Your task to perform on an android device: Clear the shopping cart on bestbuy.com. Add "logitech g910" to the cart on bestbuy.com Image 0: 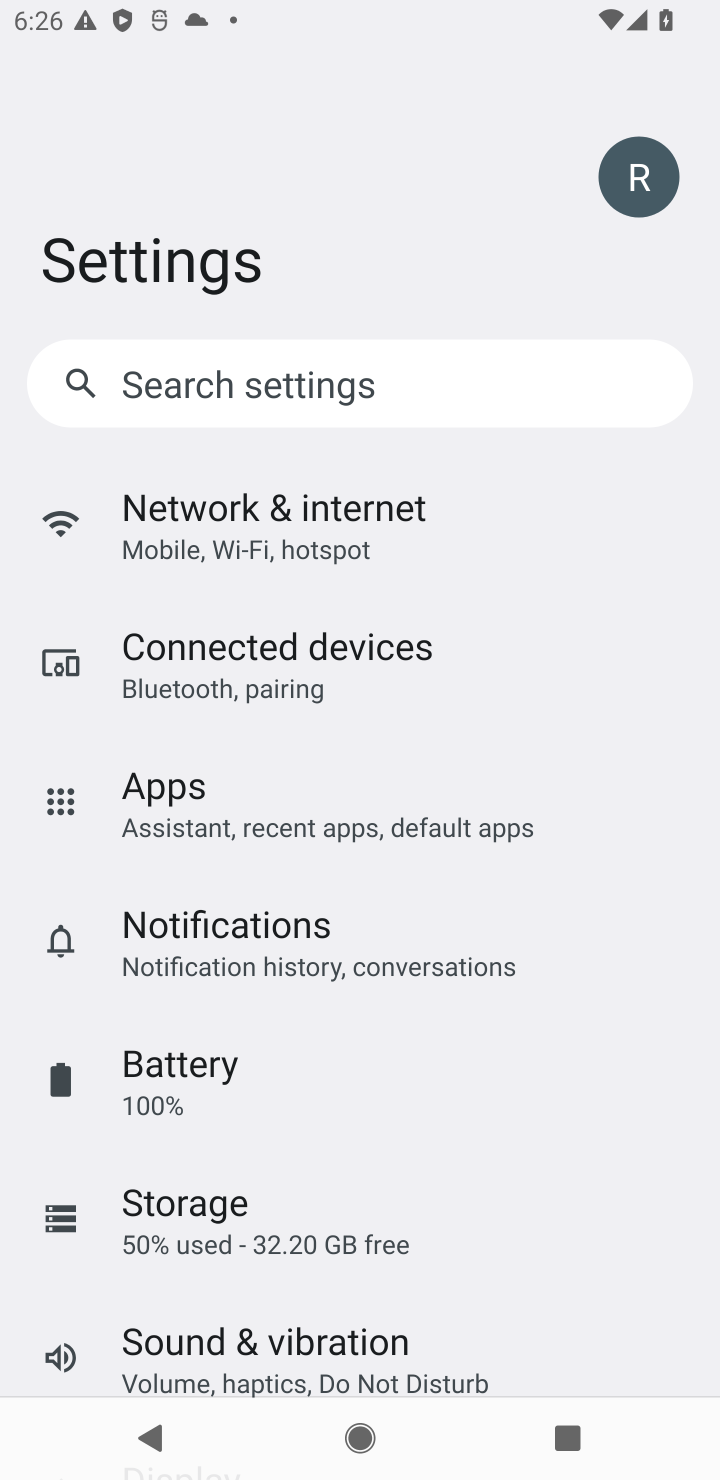
Step 0: press home button
Your task to perform on an android device: Clear the shopping cart on bestbuy.com. Add "logitech g910" to the cart on bestbuy.com Image 1: 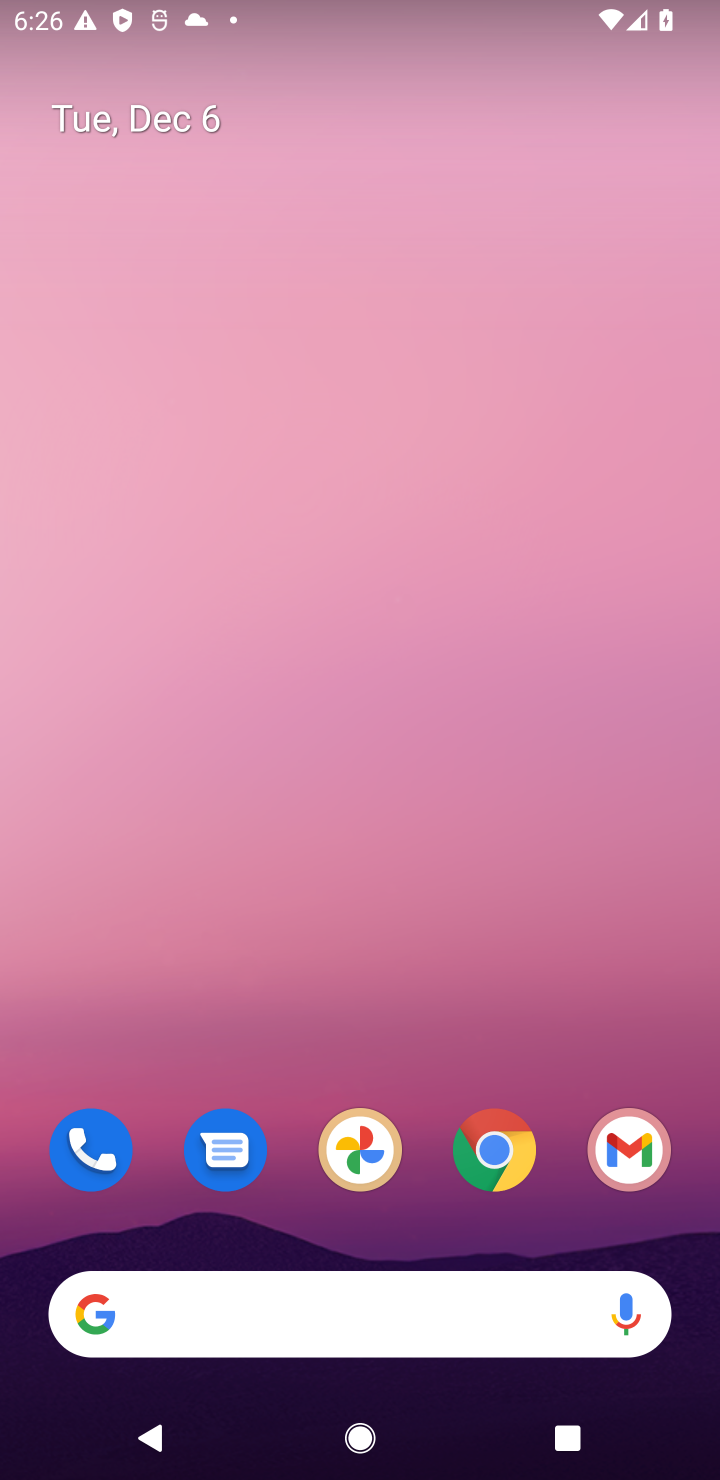
Step 1: click (490, 1150)
Your task to perform on an android device: Clear the shopping cart on bestbuy.com. Add "logitech g910" to the cart on bestbuy.com Image 2: 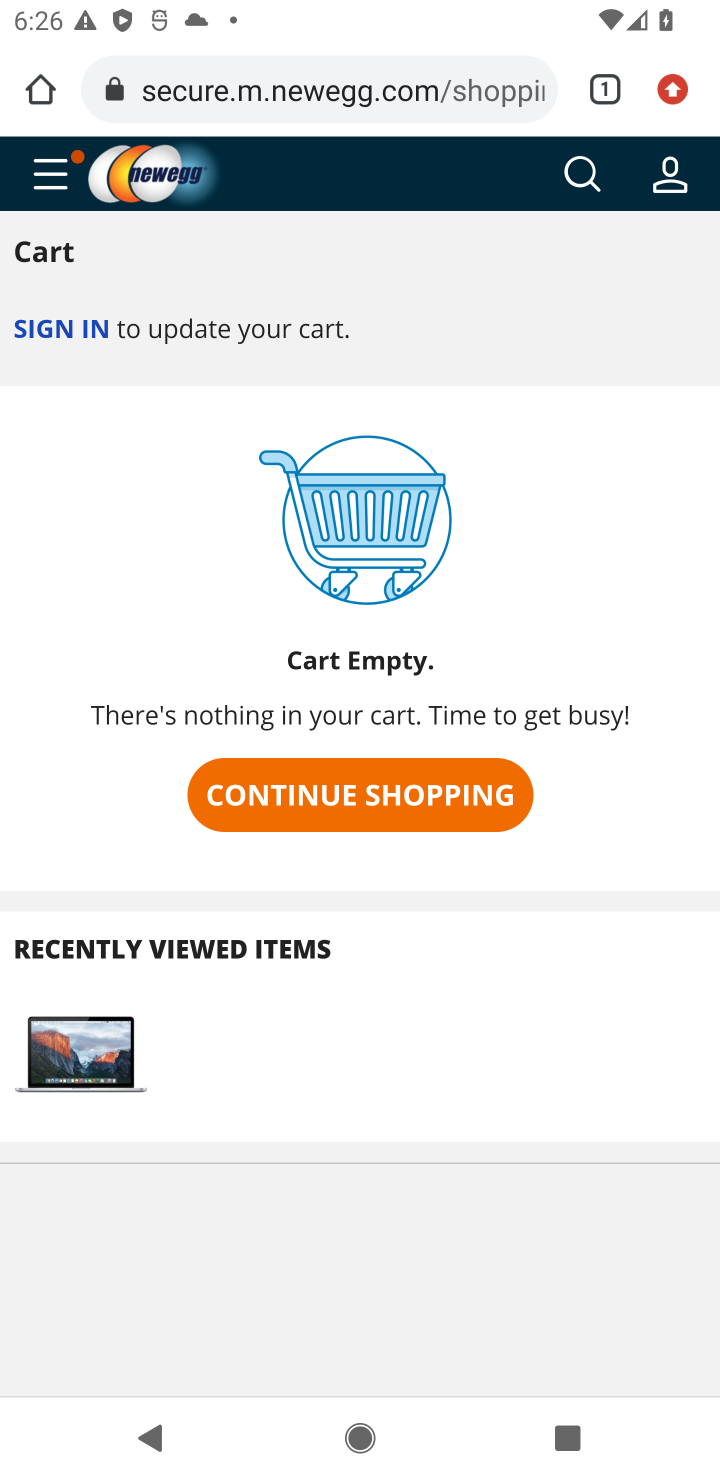
Step 2: click (295, 82)
Your task to perform on an android device: Clear the shopping cart on bestbuy.com. Add "logitech g910" to the cart on bestbuy.com Image 3: 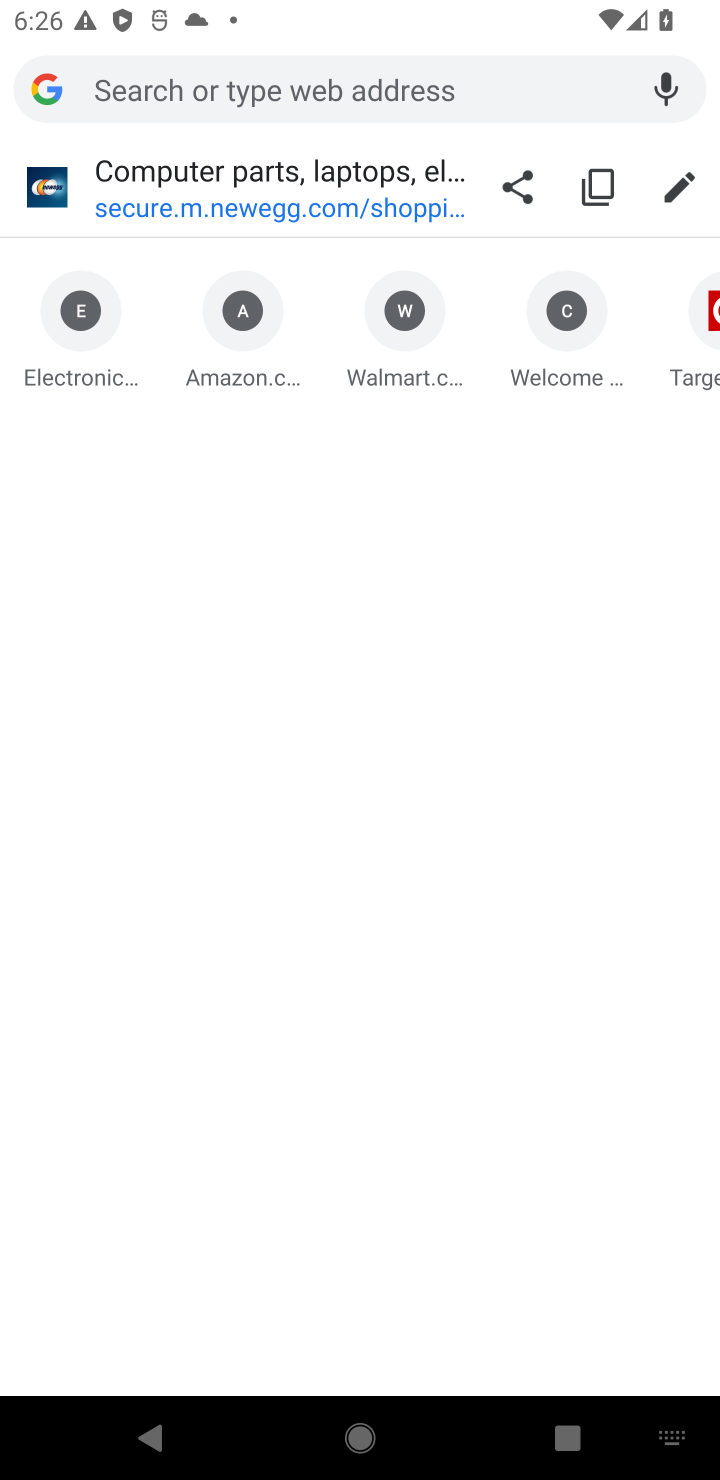
Step 3: type "bestbuy.com"
Your task to perform on an android device: Clear the shopping cart on bestbuy.com. Add "logitech g910" to the cart on bestbuy.com Image 4: 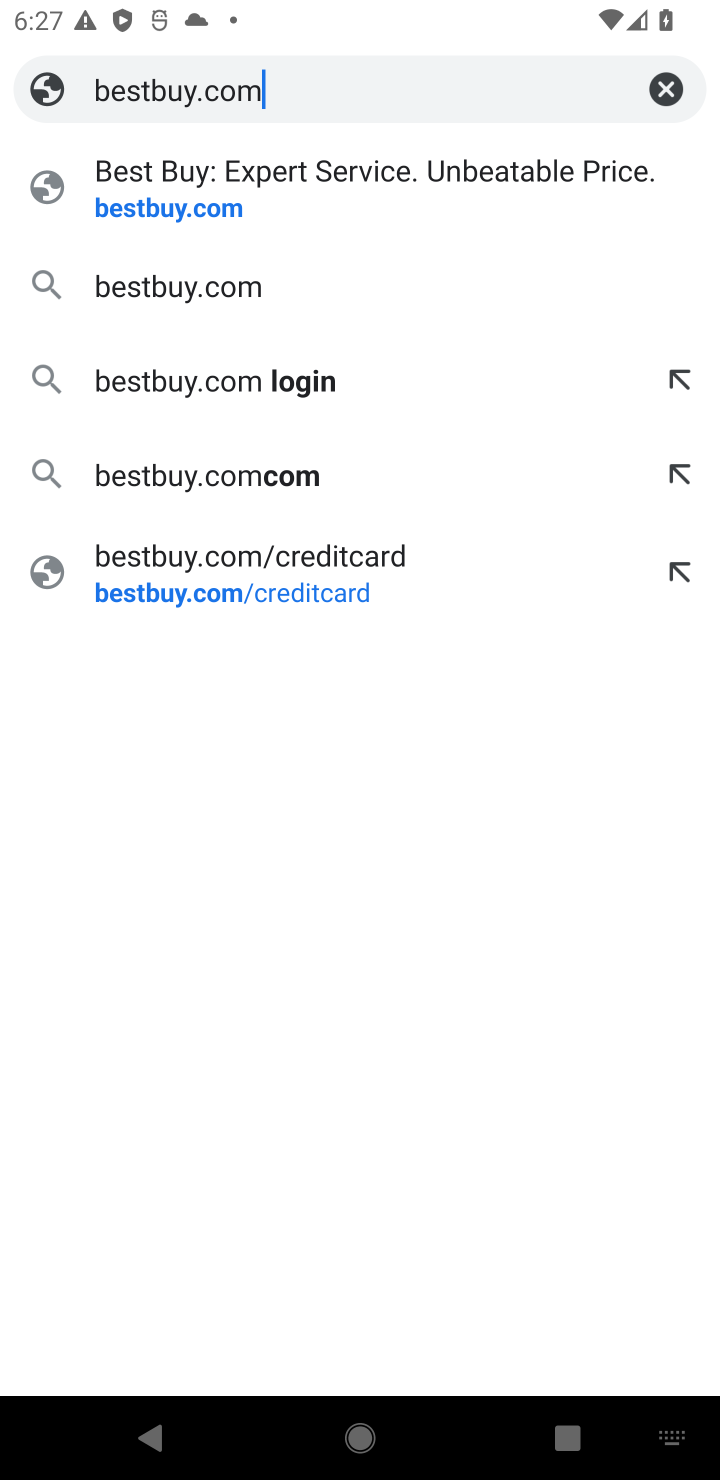
Step 4: click (149, 218)
Your task to perform on an android device: Clear the shopping cart on bestbuy.com. Add "logitech g910" to the cart on bestbuy.com Image 5: 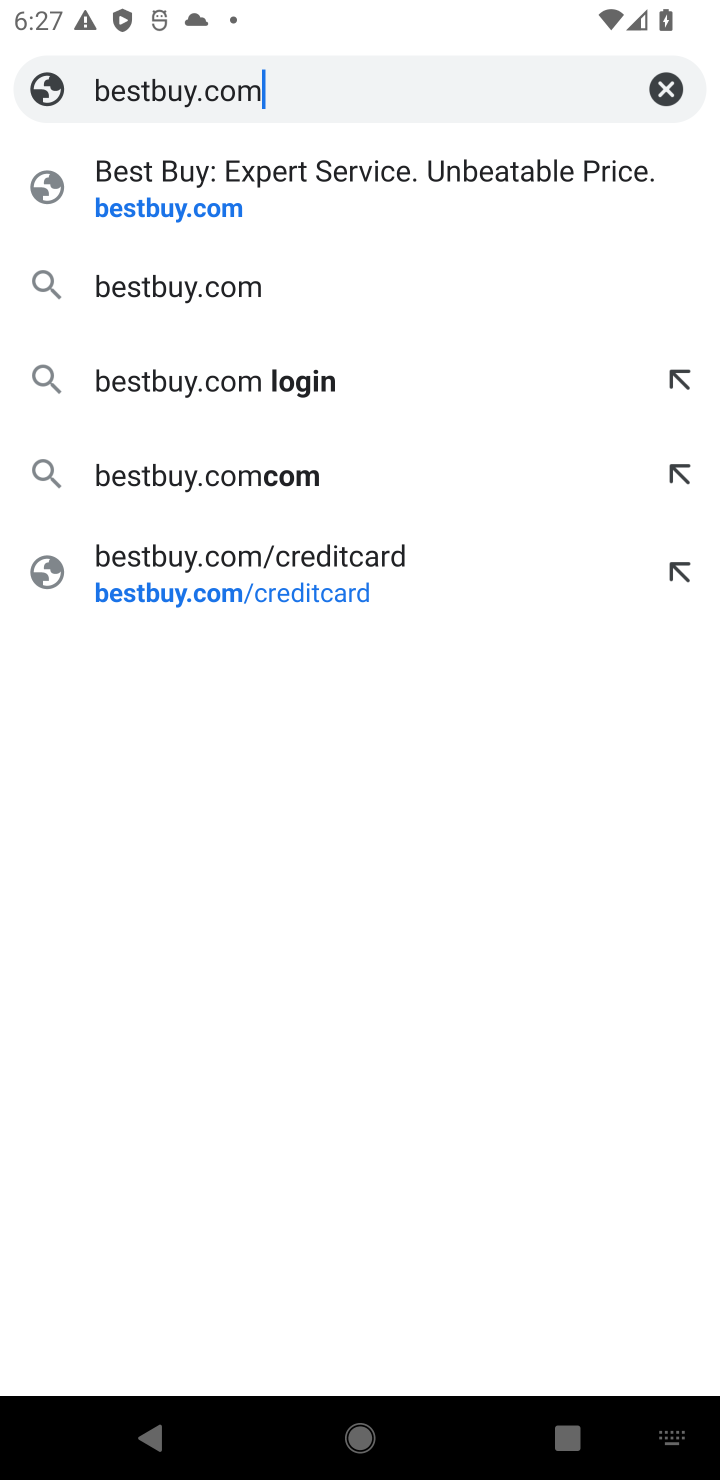
Step 5: click (138, 217)
Your task to perform on an android device: Clear the shopping cart on bestbuy.com. Add "logitech g910" to the cart on bestbuy.com Image 6: 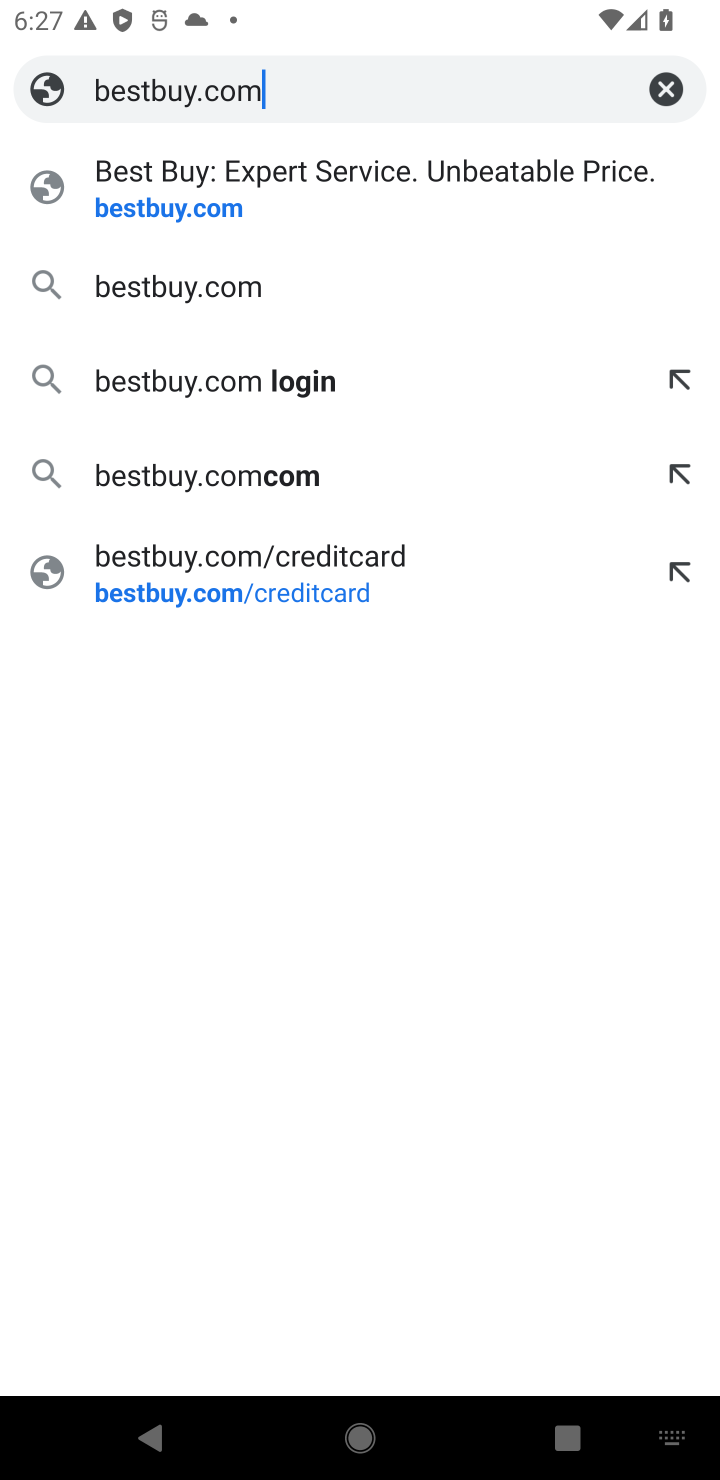
Step 6: click (302, 182)
Your task to perform on an android device: Clear the shopping cart on bestbuy.com. Add "logitech g910" to the cart on bestbuy.com Image 7: 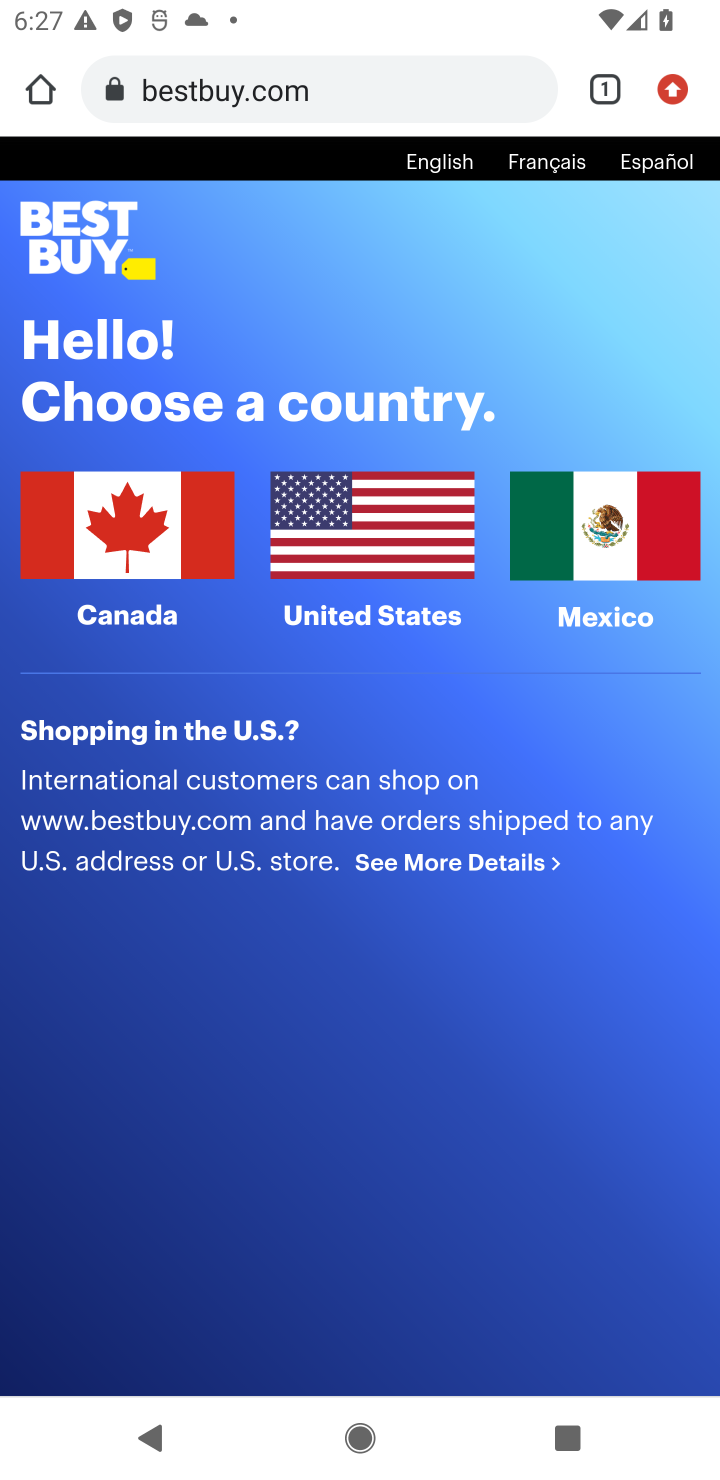
Step 7: click (363, 528)
Your task to perform on an android device: Clear the shopping cart on bestbuy.com. Add "logitech g910" to the cart on bestbuy.com Image 8: 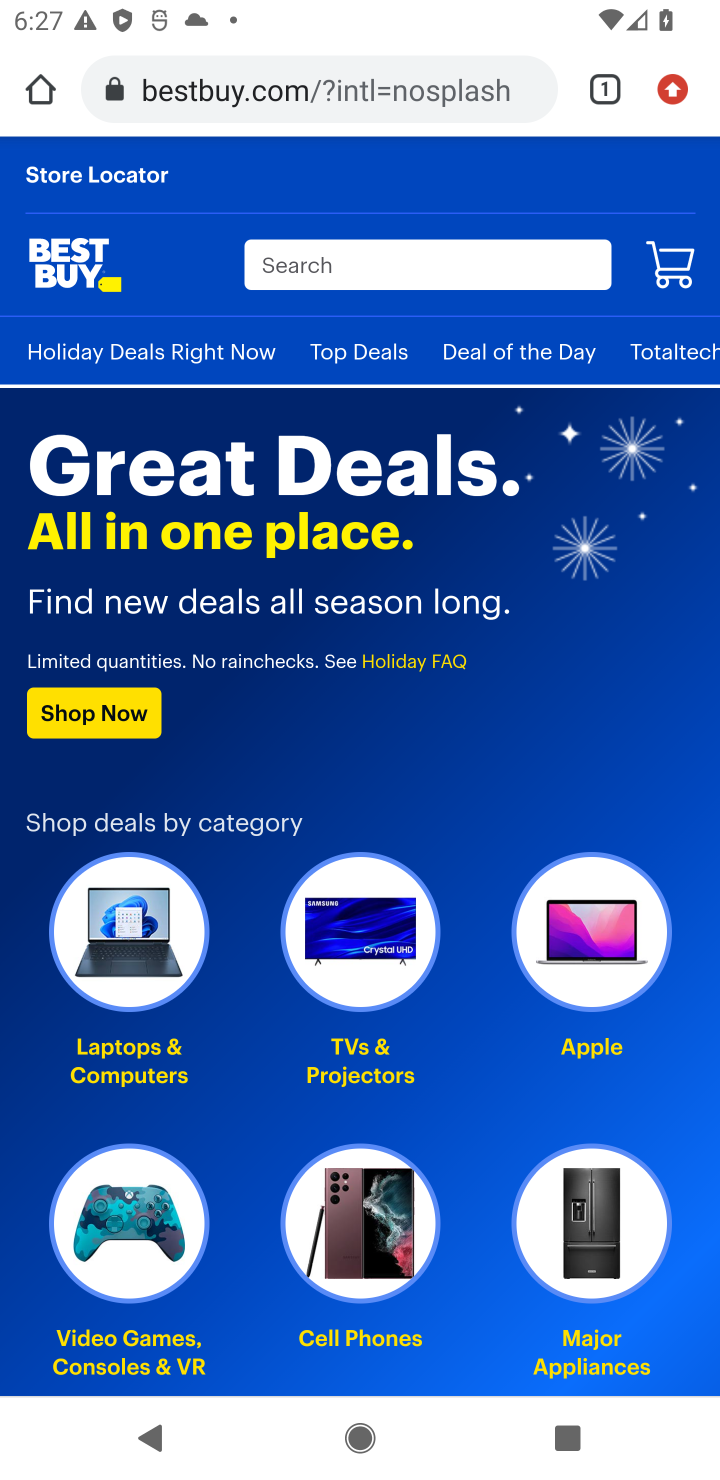
Step 8: click (668, 265)
Your task to perform on an android device: Clear the shopping cart on bestbuy.com. Add "logitech g910" to the cart on bestbuy.com Image 9: 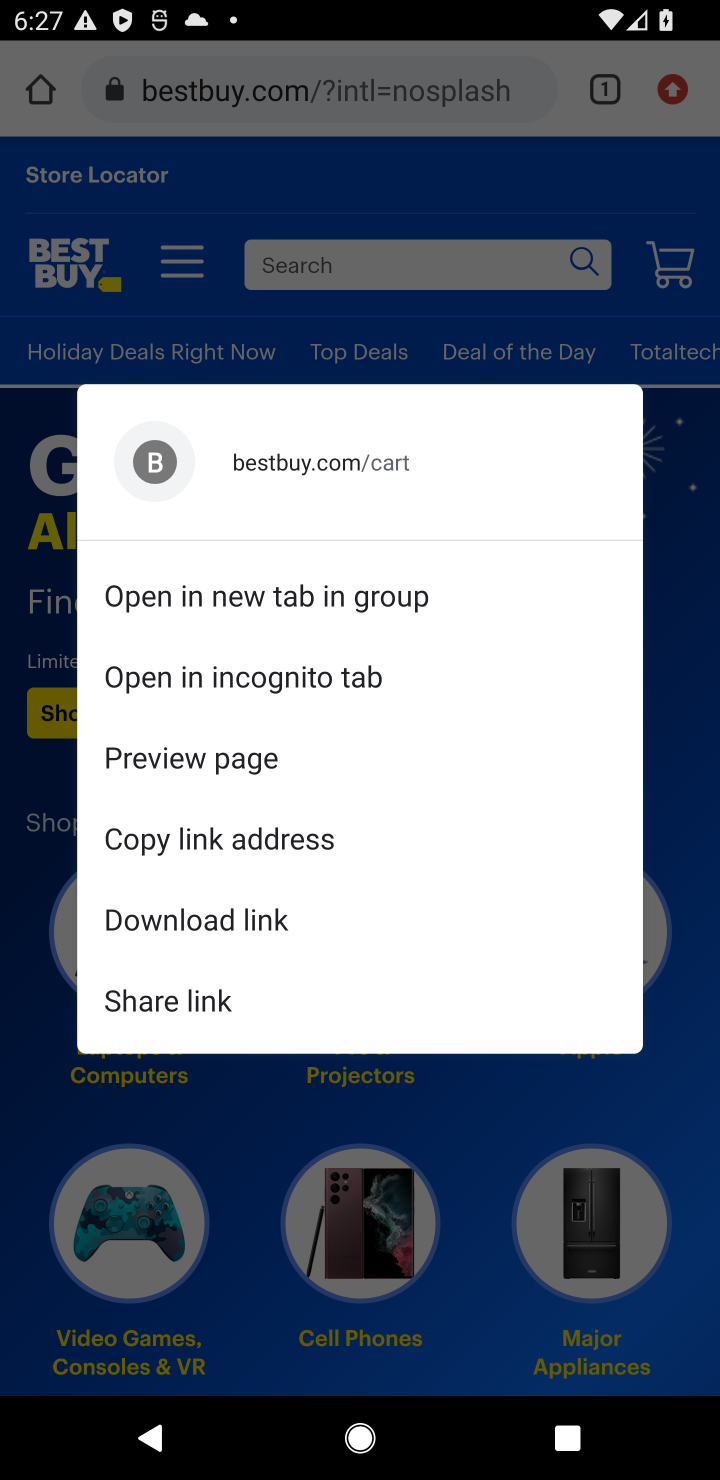
Step 9: click (666, 268)
Your task to perform on an android device: Clear the shopping cart on bestbuy.com. Add "logitech g910" to the cart on bestbuy.com Image 10: 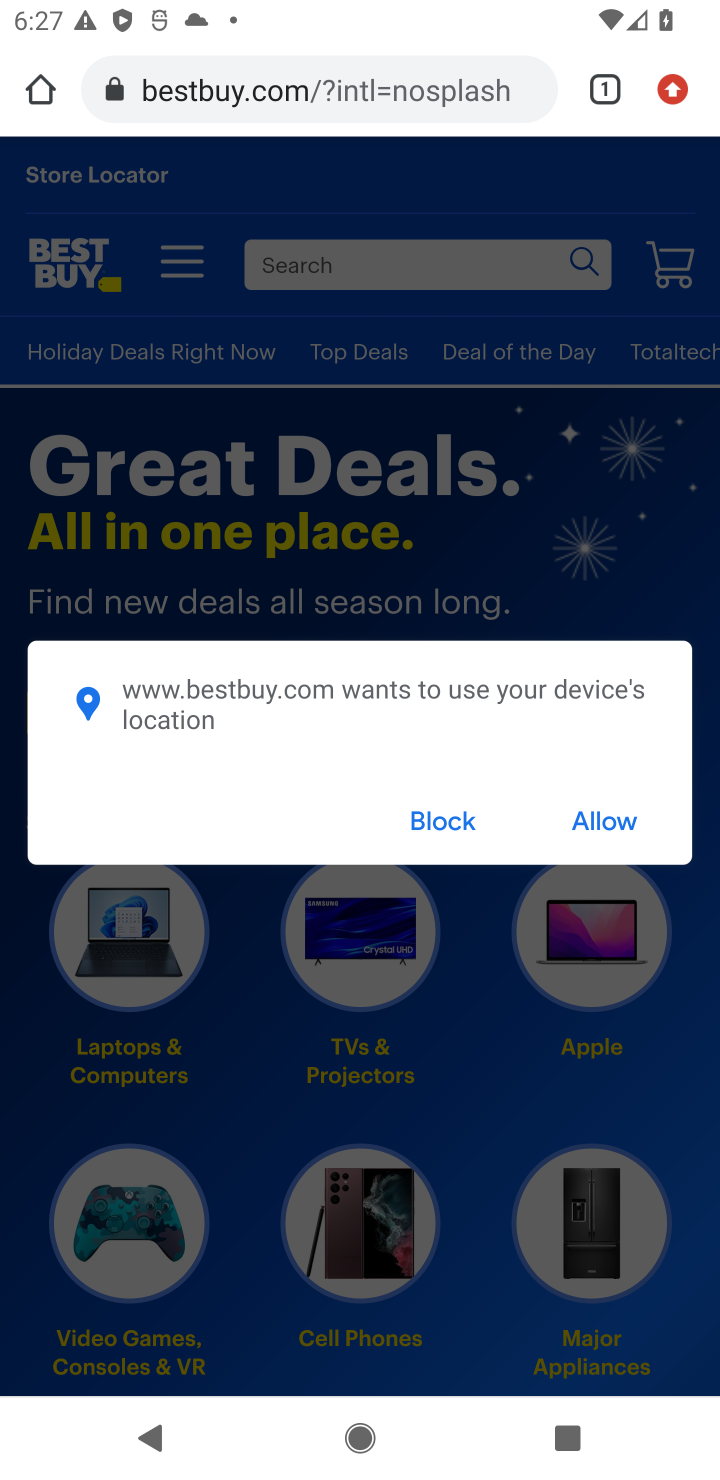
Step 10: click (424, 828)
Your task to perform on an android device: Clear the shopping cart on bestbuy.com. Add "logitech g910" to the cart on bestbuy.com Image 11: 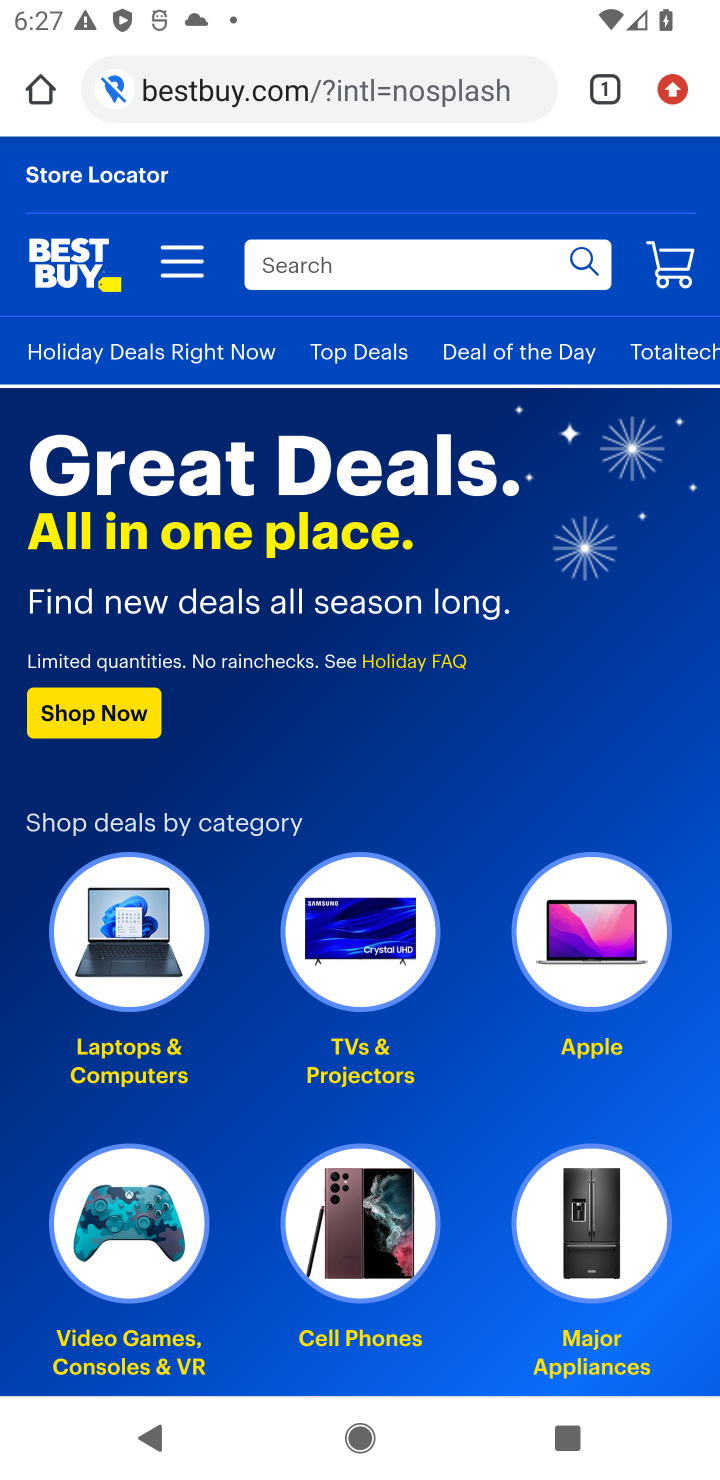
Step 11: click (671, 262)
Your task to perform on an android device: Clear the shopping cart on bestbuy.com. Add "logitech g910" to the cart on bestbuy.com Image 12: 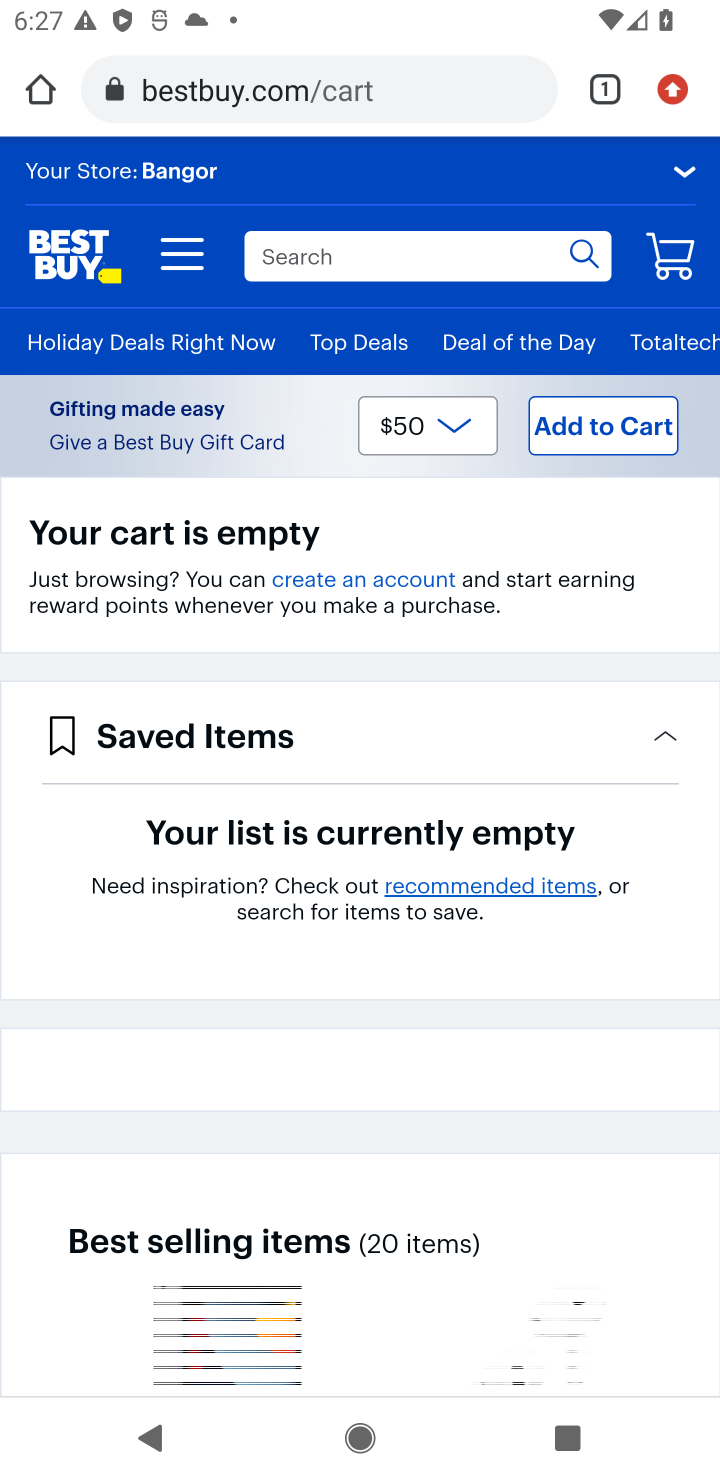
Step 12: click (314, 255)
Your task to perform on an android device: Clear the shopping cart on bestbuy.com. Add "logitech g910" to the cart on bestbuy.com Image 13: 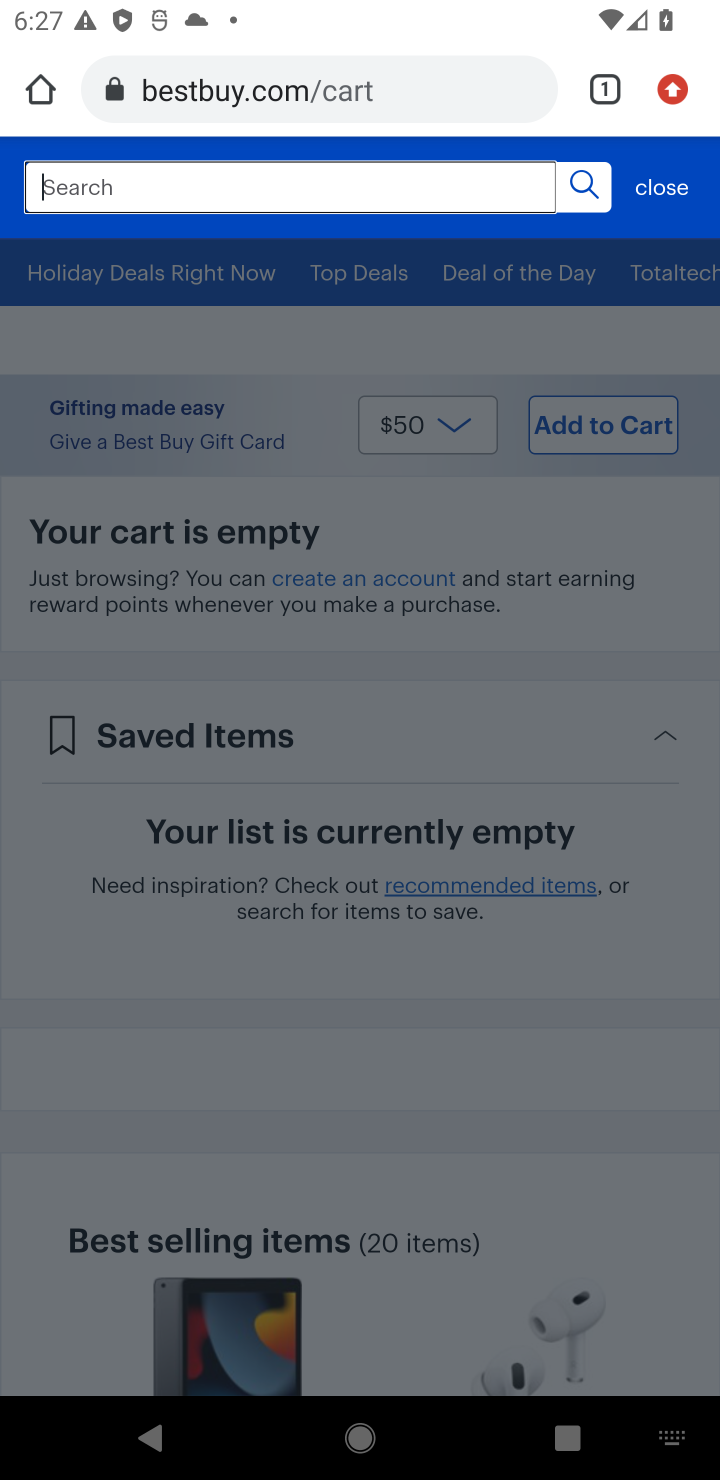
Step 13: type "logitech g910"
Your task to perform on an android device: Clear the shopping cart on bestbuy.com. Add "logitech g910" to the cart on bestbuy.com Image 14: 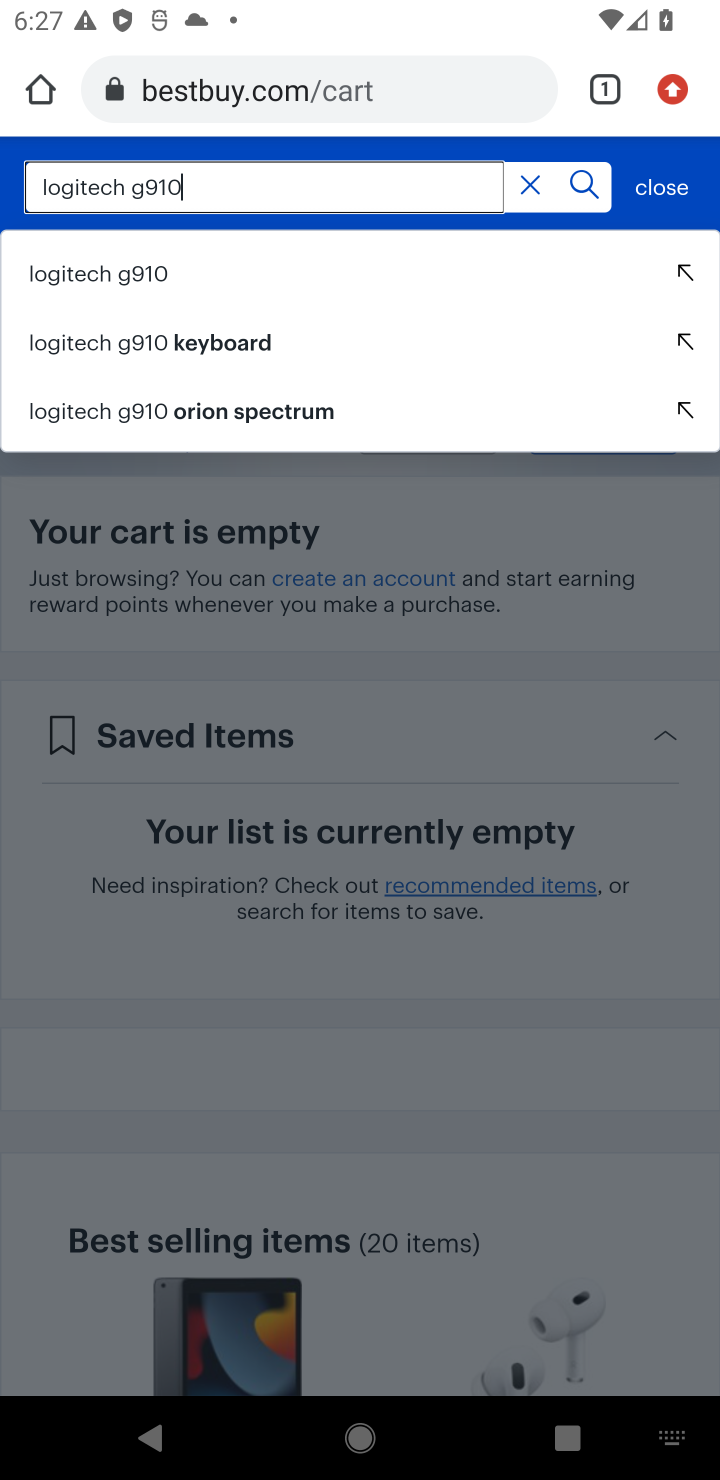
Step 14: click (117, 276)
Your task to perform on an android device: Clear the shopping cart on bestbuy.com. Add "logitech g910" to the cart on bestbuy.com Image 15: 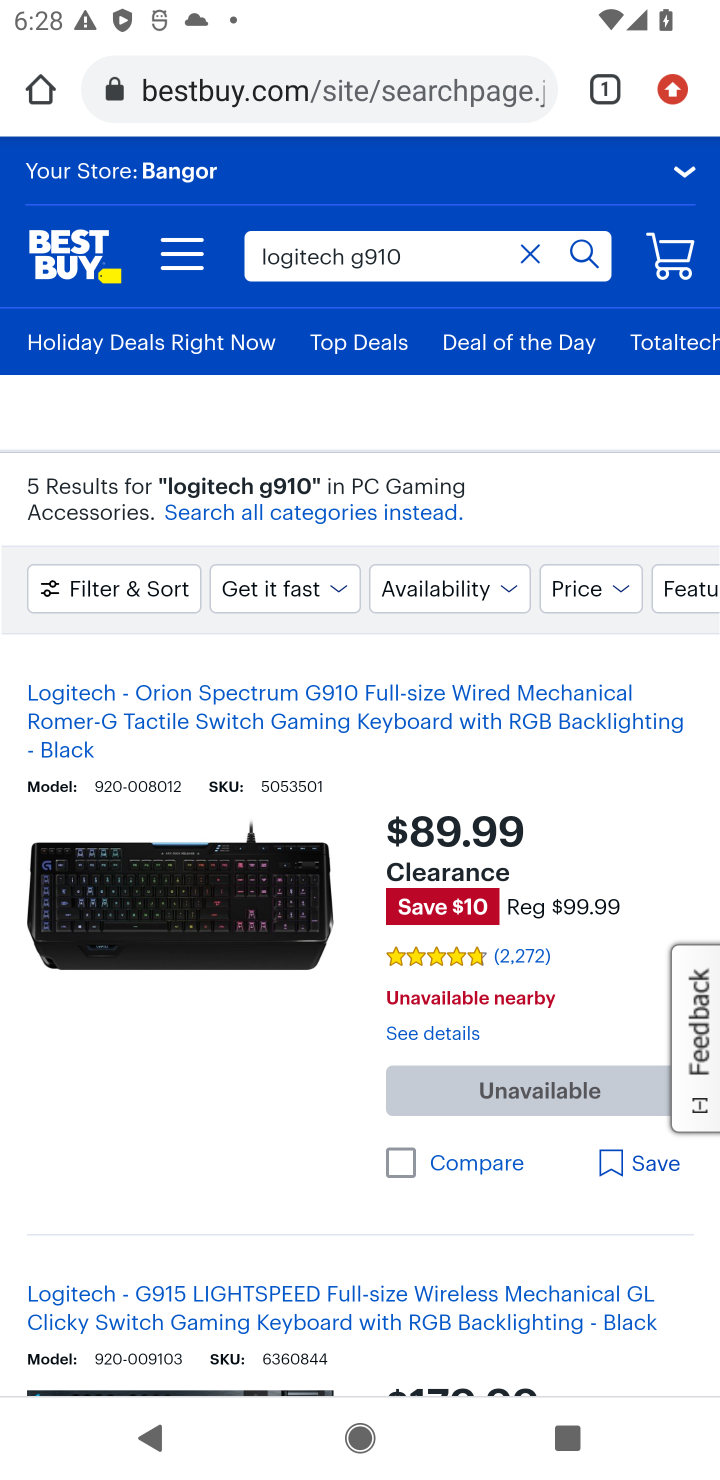
Step 15: drag from (224, 866) to (168, 544)
Your task to perform on an android device: Clear the shopping cart on bestbuy.com. Add "logitech g910" to the cart on bestbuy.com Image 16: 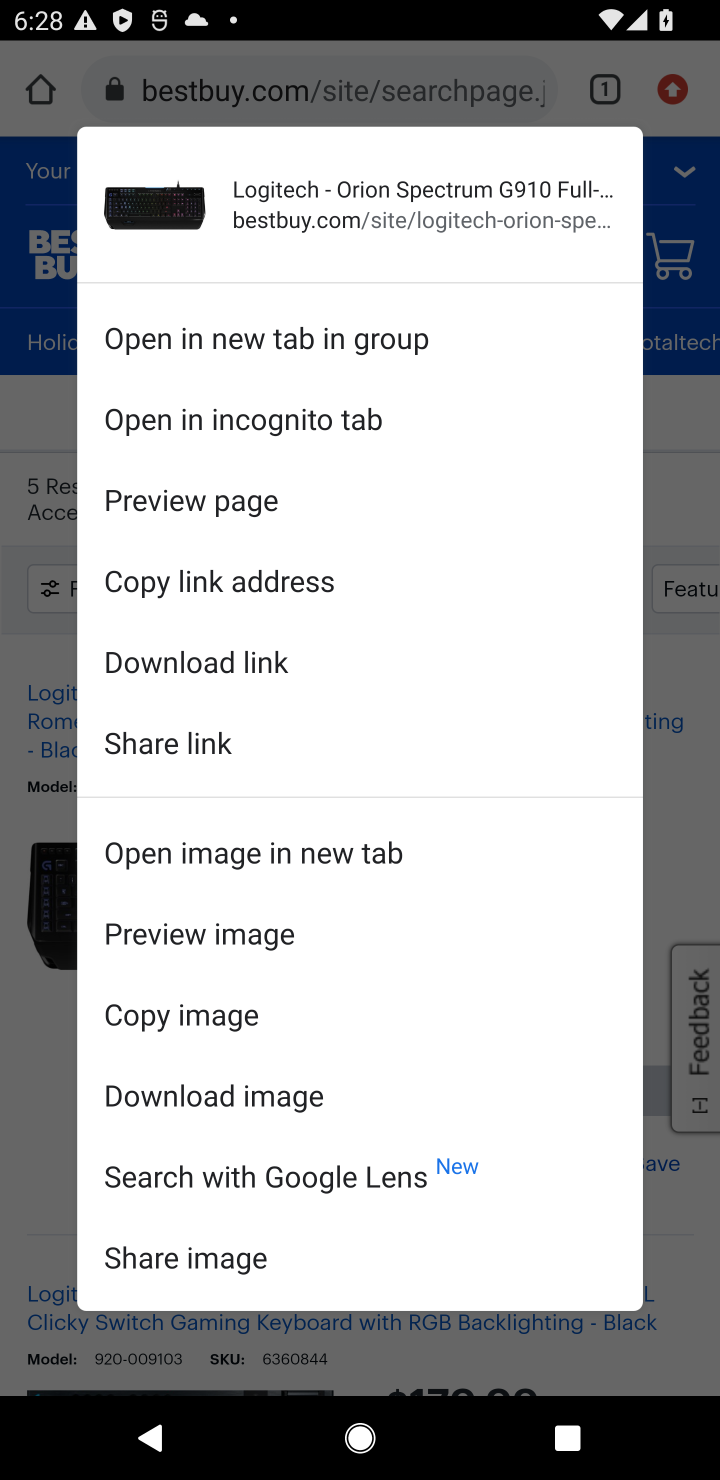
Step 16: click (684, 824)
Your task to perform on an android device: Clear the shopping cart on bestbuy.com. Add "logitech g910" to the cart on bestbuy.com Image 17: 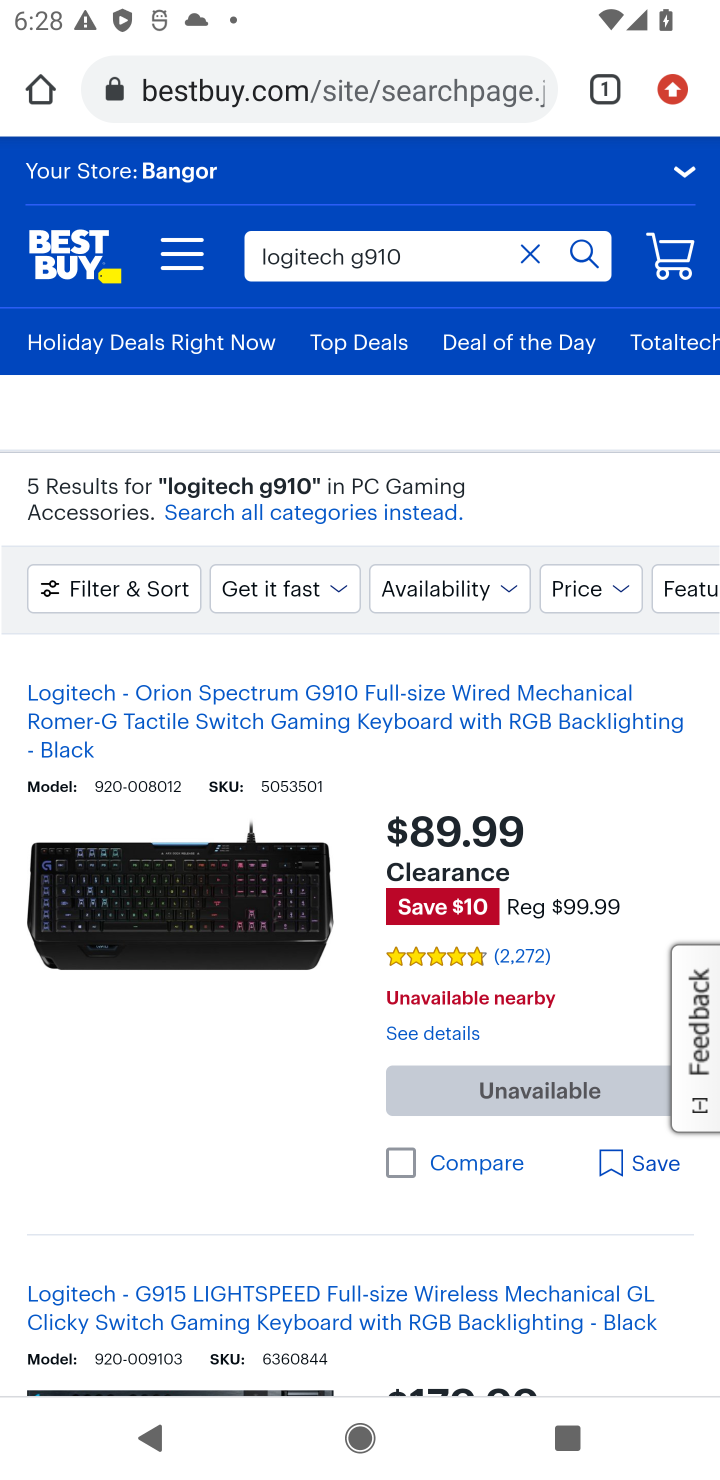
Step 17: task complete